Your task to perform on an android device: What's the US dollar exchange rate against the Australian Dollar? Image 0: 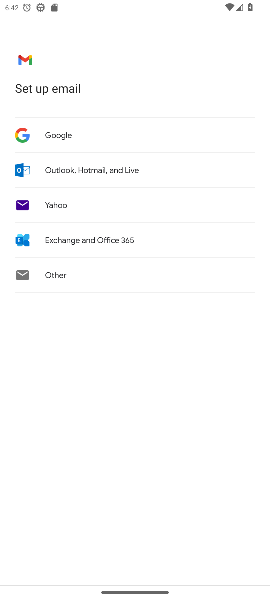
Step 0: press home button
Your task to perform on an android device: What's the US dollar exchange rate against the Australian Dollar? Image 1: 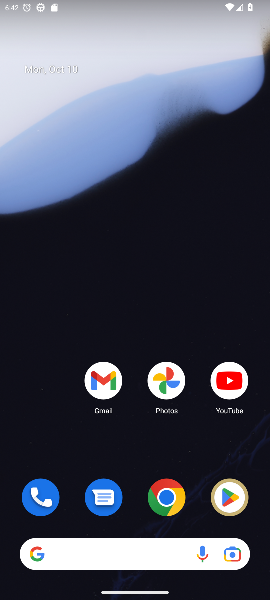
Step 1: drag from (118, 482) to (136, 170)
Your task to perform on an android device: What's the US dollar exchange rate against the Australian Dollar? Image 2: 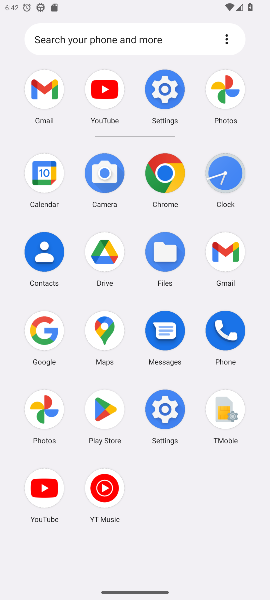
Step 2: click (41, 328)
Your task to perform on an android device: What's the US dollar exchange rate against the Australian Dollar? Image 3: 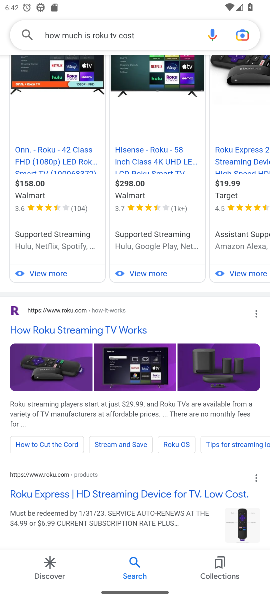
Step 3: click (157, 25)
Your task to perform on an android device: What's the US dollar exchange rate against the Australian Dollar? Image 4: 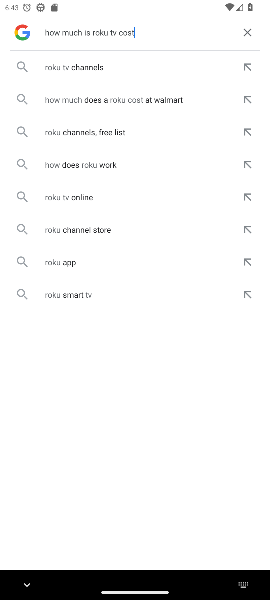
Step 4: click (243, 25)
Your task to perform on an android device: What's the US dollar exchange rate against the Australian Dollar? Image 5: 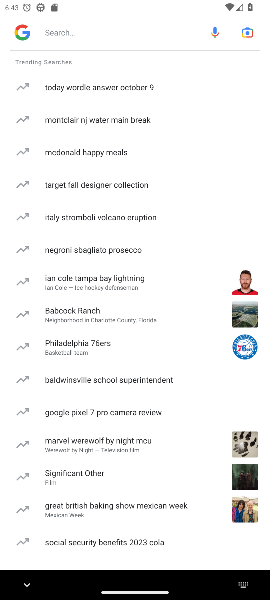
Step 5: click (104, 35)
Your task to perform on an android device: What's the US dollar exchange rate against the Australian Dollar? Image 6: 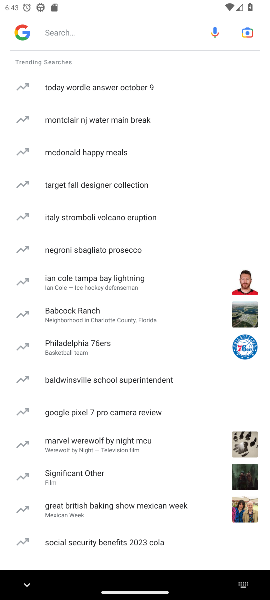
Step 6: type "What's the US dollar exchange rate against the Australian Dollar? "
Your task to perform on an android device: What's the US dollar exchange rate against the Australian Dollar? Image 7: 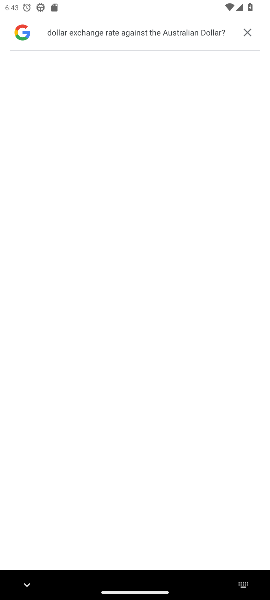
Step 7: click (221, 31)
Your task to perform on an android device: What's the US dollar exchange rate against the Australian Dollar? Image 8: 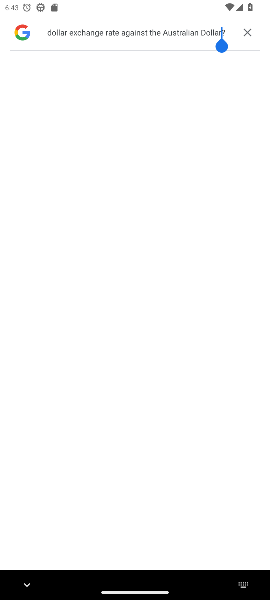
Step 8: click (230, 28)
Your task to perform on an android device: What's the US dollar exchange rate against the Australian Dollar? Image 9: 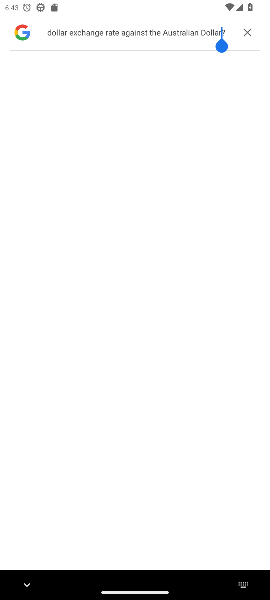
Step 9: click (227, 31)
Your task to perform on an android device: What's the US dollar exchange rate against the Australian Dollar? Image 10: 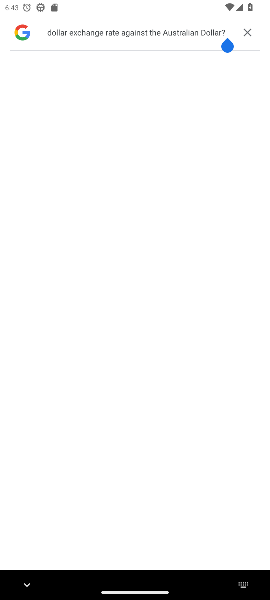
Step 10: click (220, 33)
Your task to perform on an android device: What's the US dollar exchange rate against the Australian Dollar? Image 11: 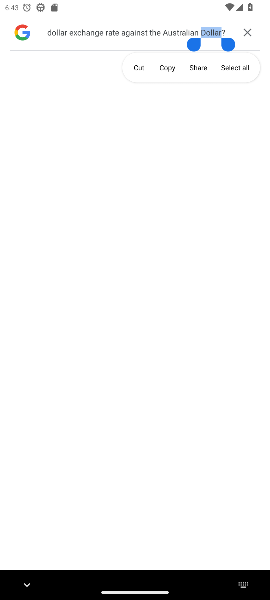
Step 11: click (245, 19)
Your task to perform on an android device: What's the US dollar exchange rate against the Australian Dollar? Image 12: 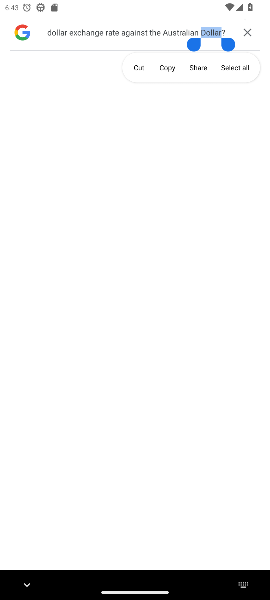
Step 12: click (245, 27)
Your task to perform on an android device: What's the US dollar exchange rate against the Australian Dollar? Image 13: 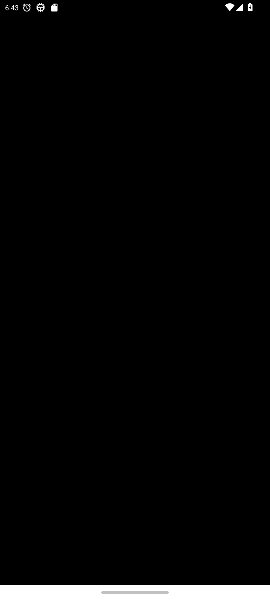
Step 13: click (95, 31)
Your task to perform on an android device: What's the US dollar exchange rate against the Australian Dollar? Image 14: 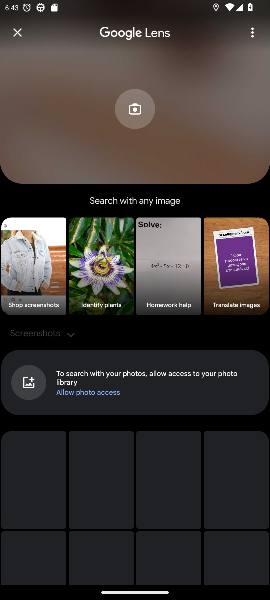
Step 14: press back button
Your task to perform on an android device: What's the US dollar exchange rate against the Australian Dollar? Image 15: 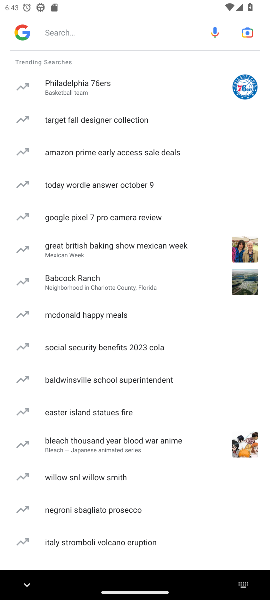
Step 15: click (78, 39)
Your task to perform on an android device: What's the US dollar exchange rate against the Australian Dollar? Image 16: 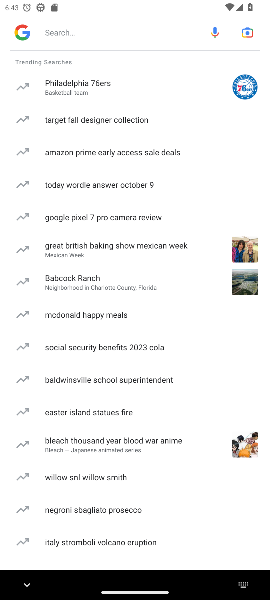
Step 16: type "What's the US dollar exchange rate against the Australian Dollar "
Your task to perform on an android device: What's the US dollar exchange rate against the Australian Dollar? Image 17: 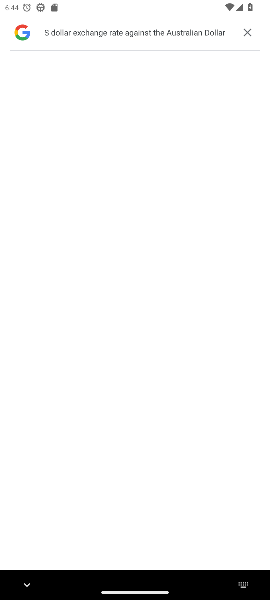
Step 17: click (143, 36)
Your task to perform on an android device: What's the US dollar exchange rate against the Australian Dollar? Image 18: 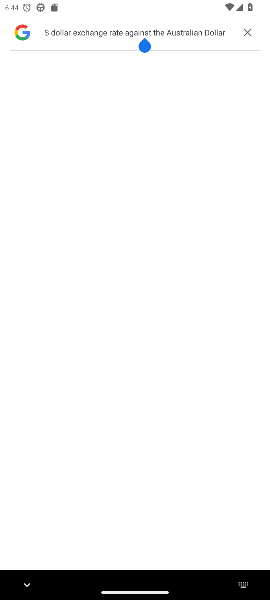
Step 18: click (240, 28)
Your task to perform on an android device: What's the US dollar exchange rate against the Australian Dollar? Image 19: 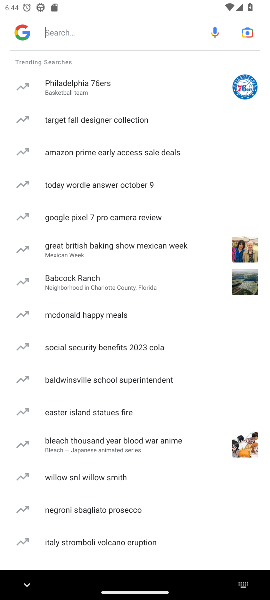
Step 19: click (94, 30)
Your task to perform on an android device: What's the US dollar exchange rate against the Australian Dollar? Image 20: 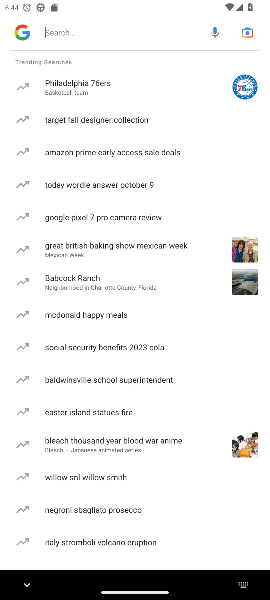
Step 20: type "US dollar exchange rate against the Australian Dollar "
Your task to perform on an android device: What's the US dollar exchange rate against the Australian Dollar? Image 21: 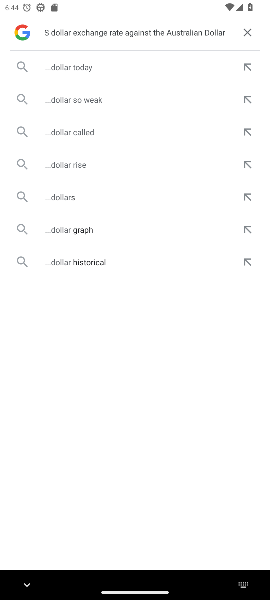
Step 21: click (86, 67)
Your task to perform on an android device: What's the US dollar exchange rate against the Australian Dollar? Image 22: 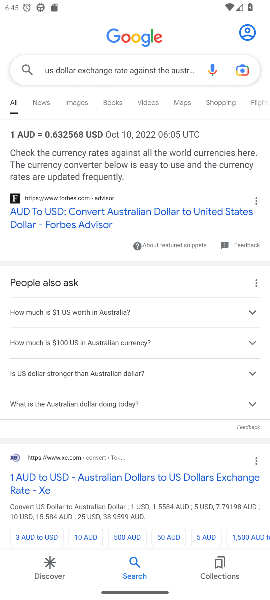
Step 22: drag from (89, 296) to (59, 429)
Your task to perform on an android device: What's the US dollar exchange rate against the Australian Dollar? Image 23: 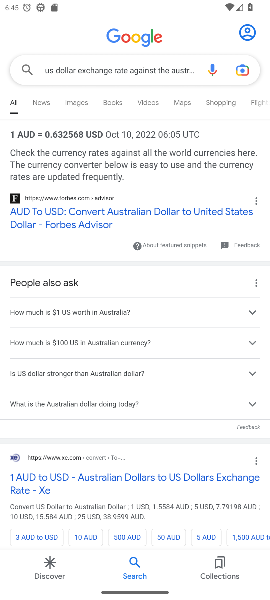
Step 23: click (46, 472)
Your task to perform on an android device: What's the US dollar exchange rate against the Australian Dollar? Image 24: 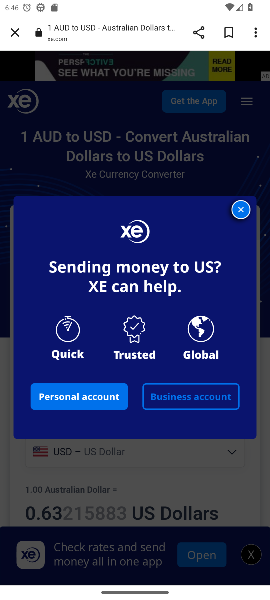
Step 24: click (240, 215)
Your task to perform on an android device: What's the US dollar exchange rate against the Australian Dollar? Image 25: 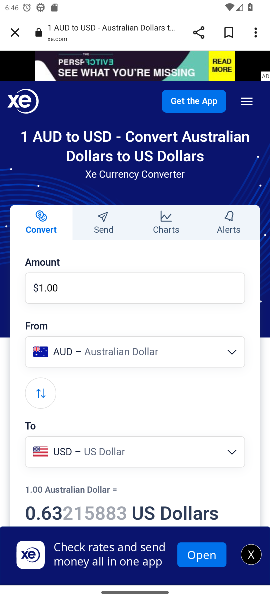
Step 25: task complete